Your task to perform on an android device: set an alarm Image 0: 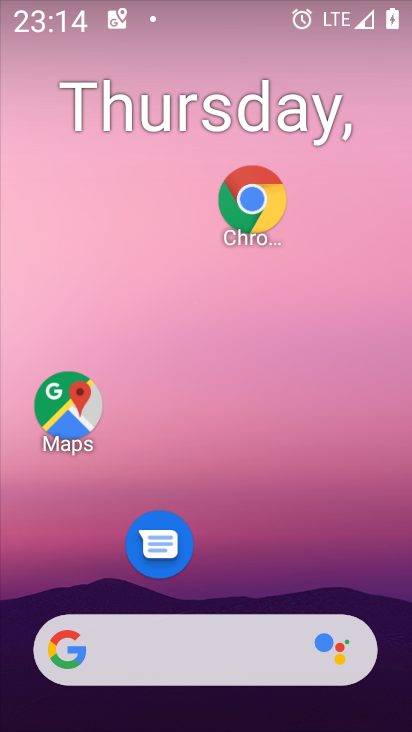
Step 0: drag from (196, 588) to (120, 64)
Your task to perform on an android device: set an alarm Image 1: 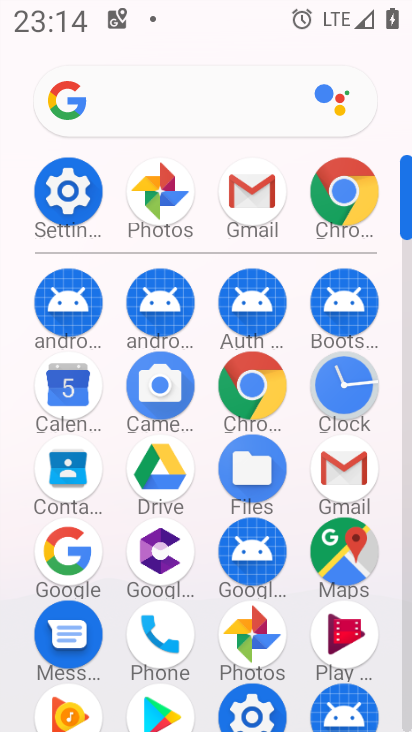
Step 1: click (350, 388)
Your task to perform on an android device: set an alarm Image 2: 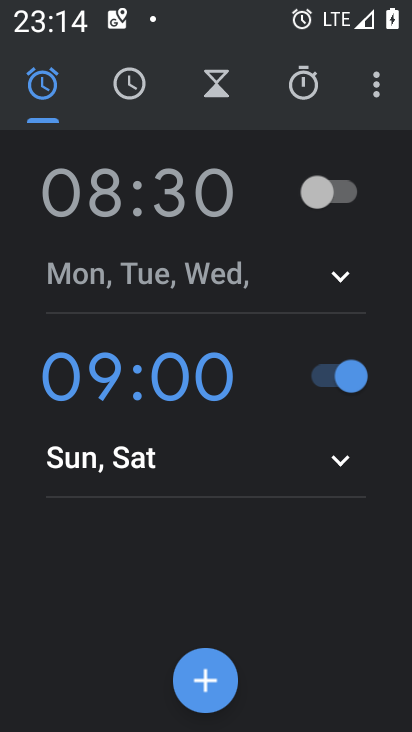
Step 2: click (335, 201)
Your task to perform on an android device: set an alarm Image 3: 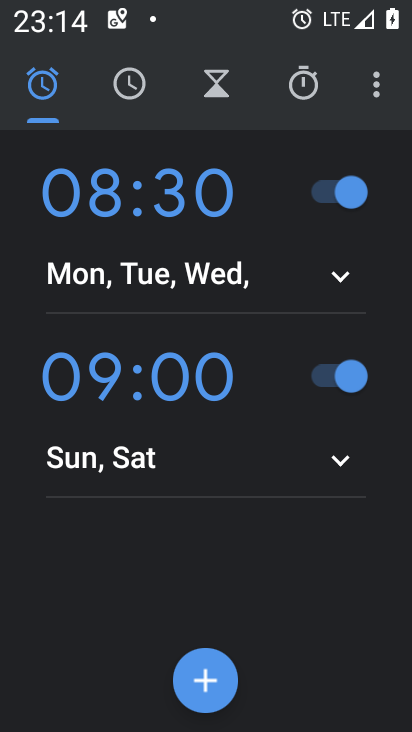
Step 3: task complete